Your task to perform on an android device: check the backup settings in the google photos Image 0: 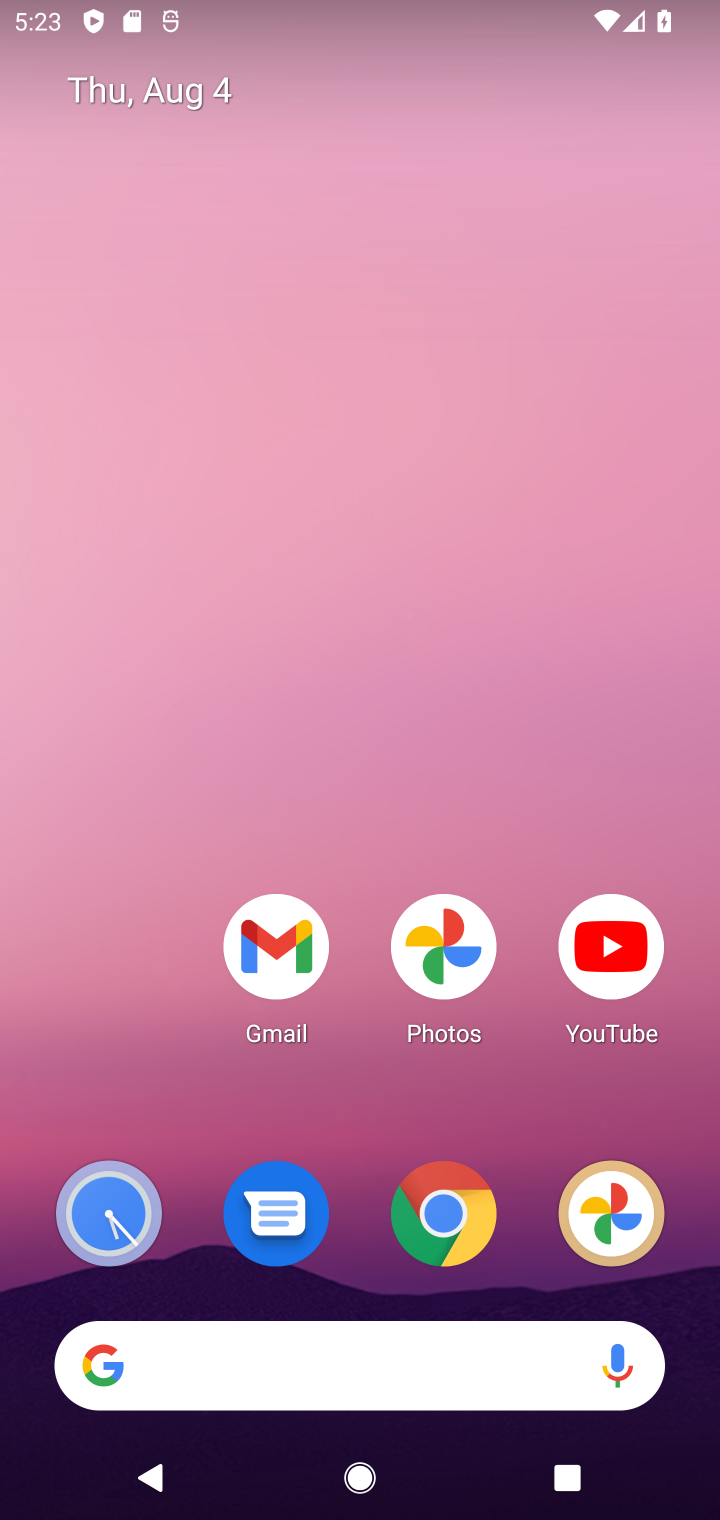
Step 0: click (476, 933)
Your task to perform on an android device: check the backup settings in the google photos Image 1: 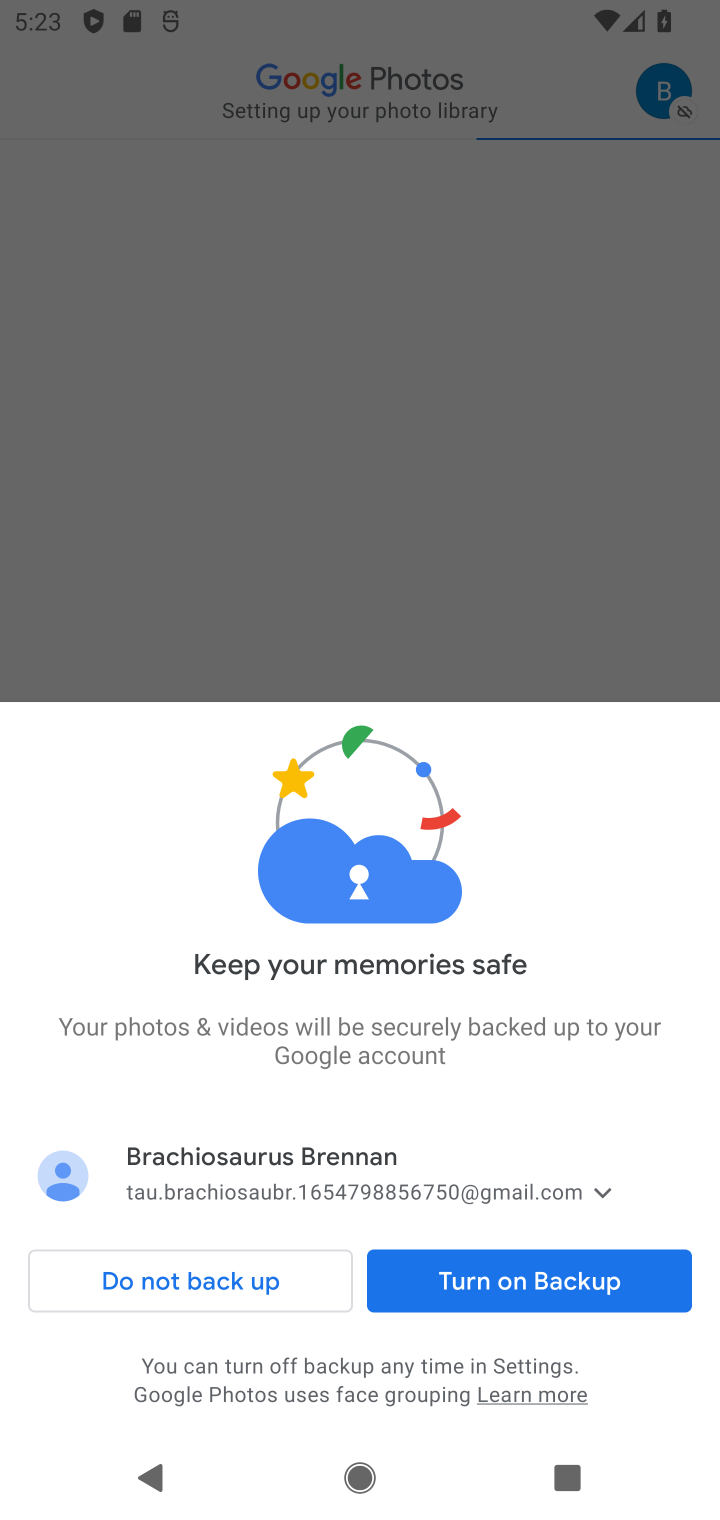
Step 1: click (476, 933)
Your task to perform on an android device: check the backup settings in the google photos Image 2: 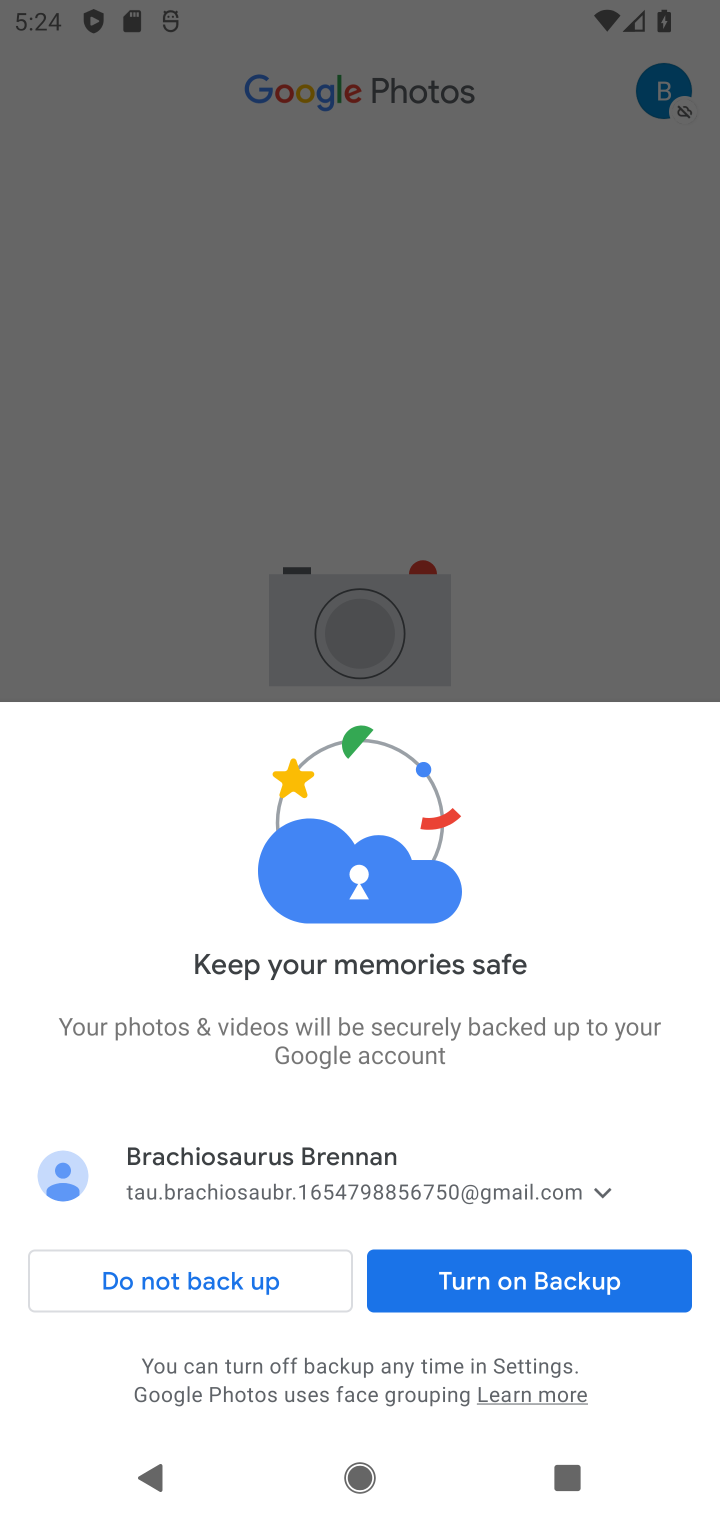
Step 2: click (424, 1268)
Your task to perform on an android device: check the backup settings in the google photos Image 3: 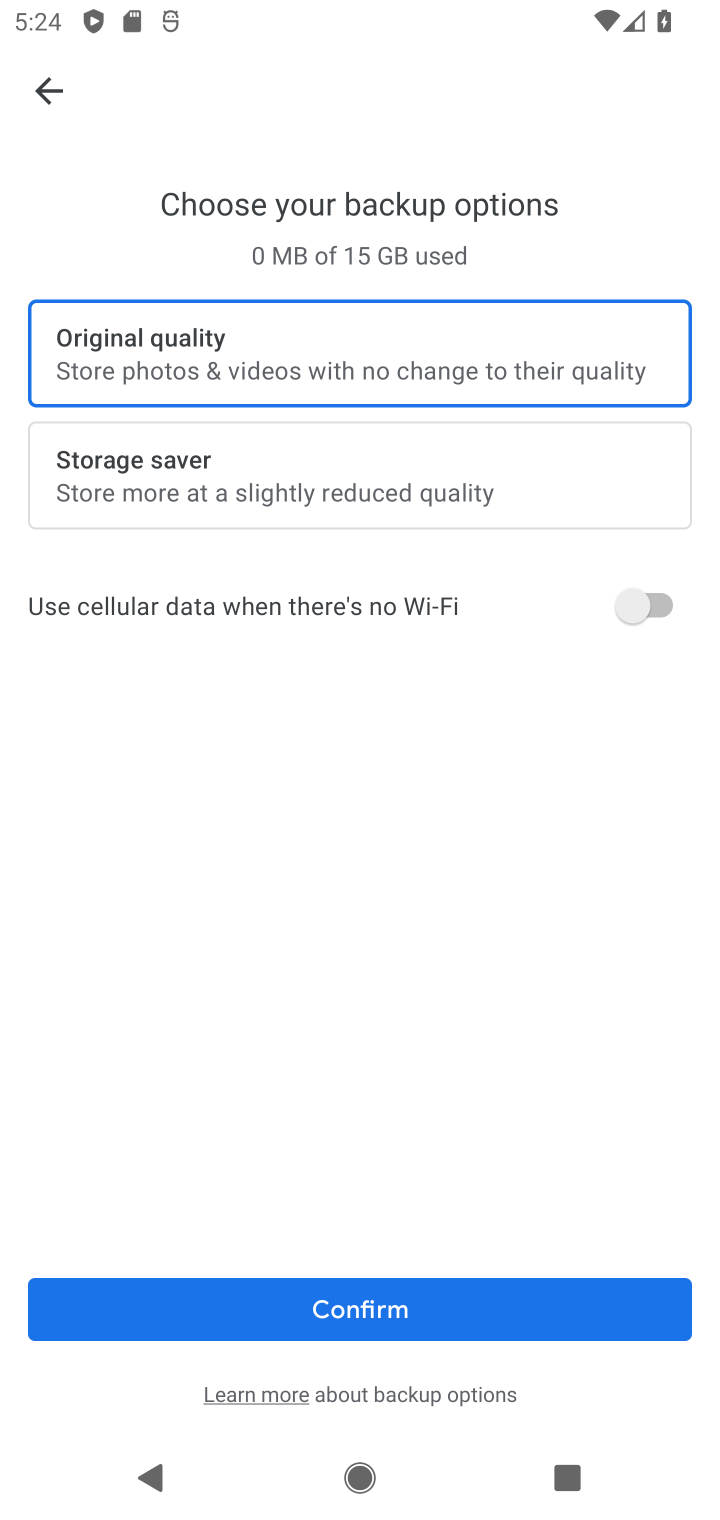
Step 3: click (418, 1300)
Your task to perform on an android device: check the backup settings in the google photos Image 4: 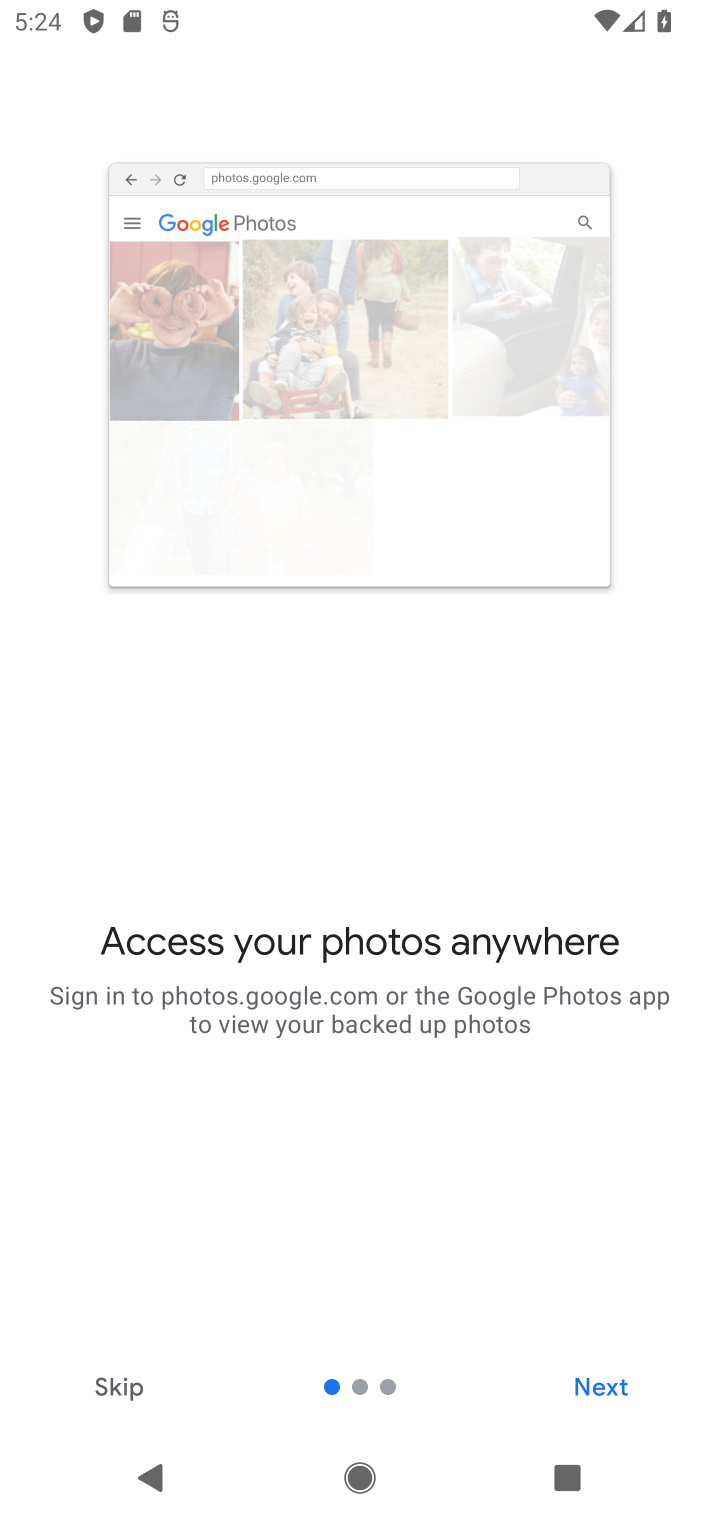
Step 4: click (121, 1385)
Your task to perform on an android device: check the backup settings in the google photos Image 5: 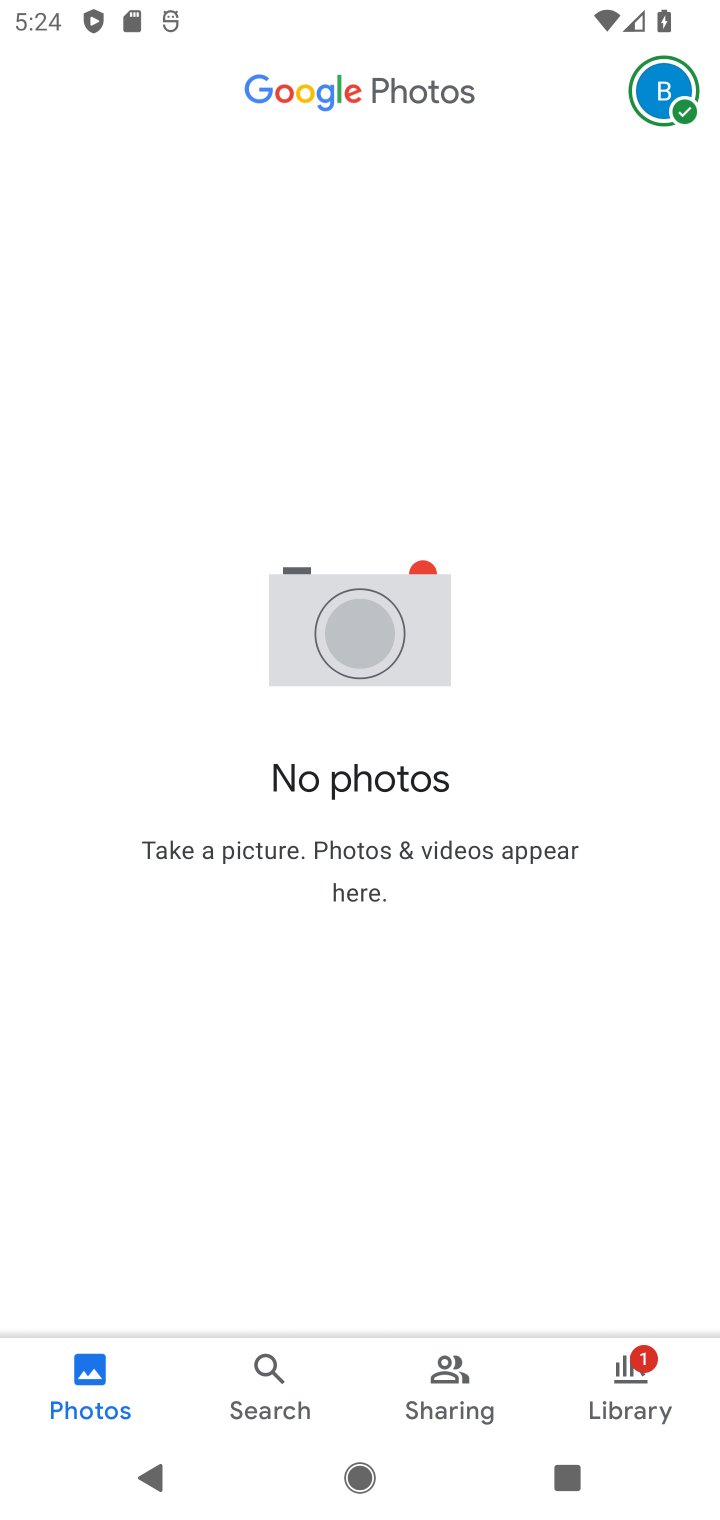
Step 5: click (663, 99)
Your task to perform on an android device: check the backup settings in the google photos Image 6: 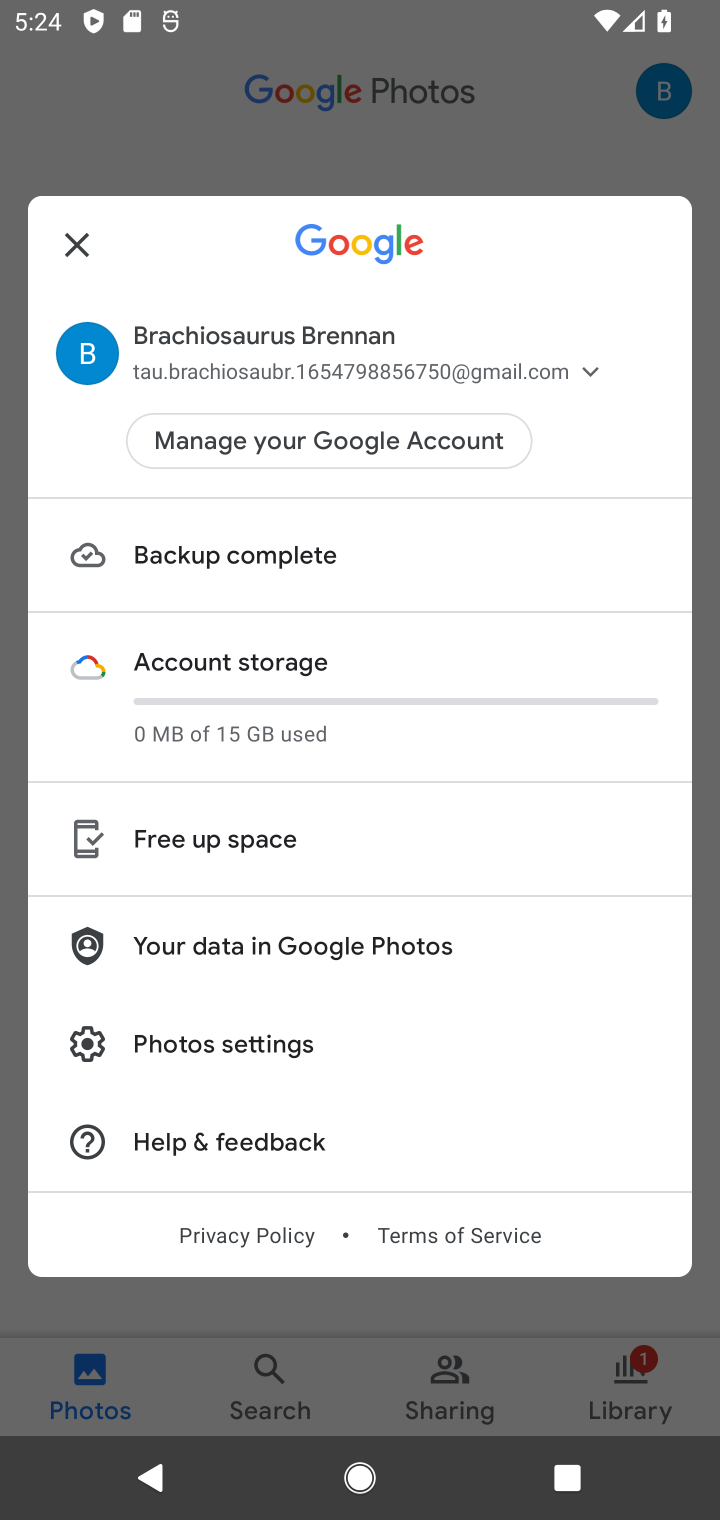
Step 6: click (136, 1042)
Your task to perform on an android device: check the backup settings in the google photos Image 7: 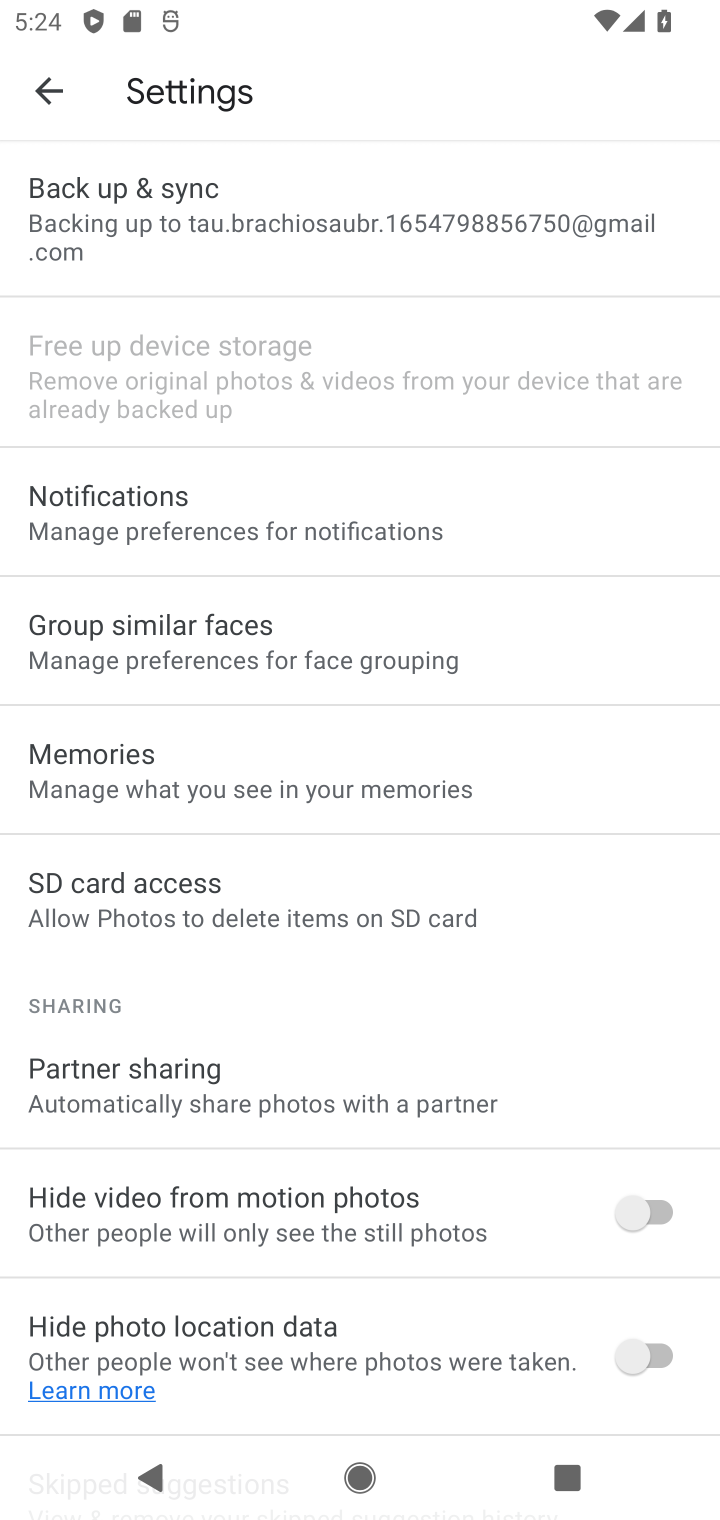
Step 7: click (519, 196)
Your task to perform on an android device: check the backup settings in the google photos Image 8: 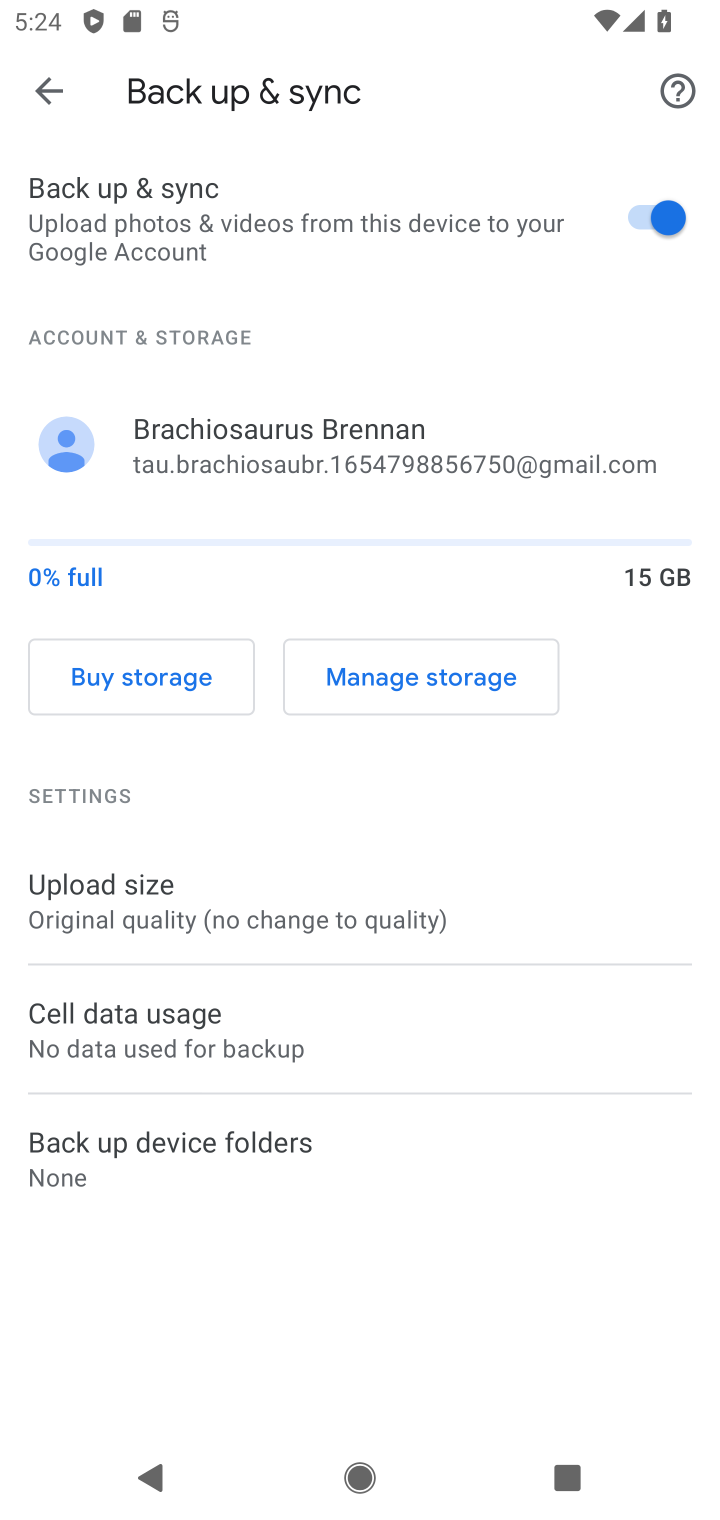
Step 8: task complete